Your task to perform on an android device: Go to sound settings Image 0: 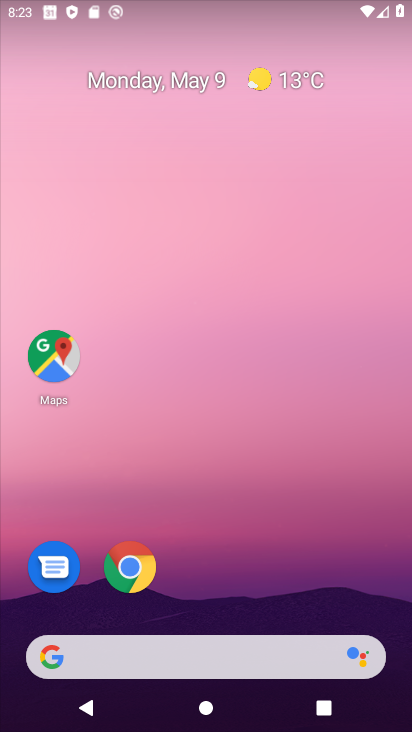
Step 0: drag from (274, 541) to (306, 11)
Your task to perform on an android device: Go to sound settings Image 1: 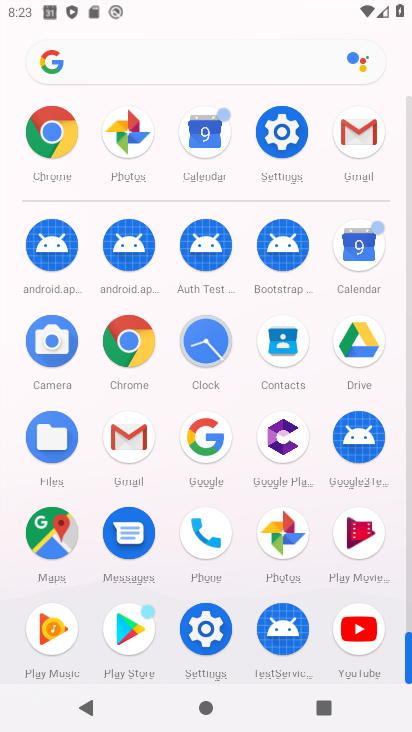
Step 1: click (281, 126)
Your task to perform on an android device: Go to sound settings Image 2: 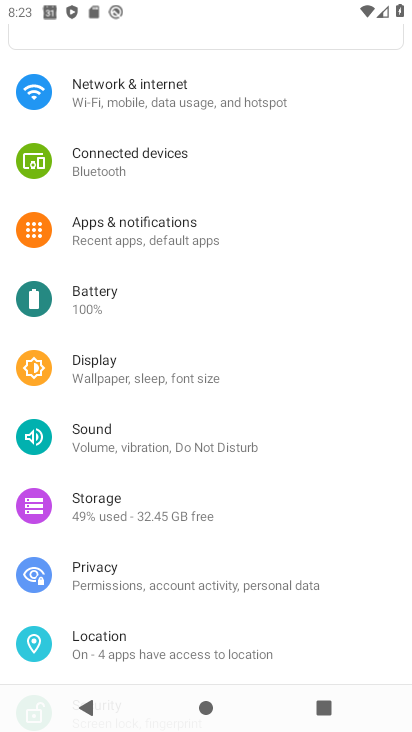
Step 2: click (151, 452)
Your task to perform on an android device: Go to sound settings Image 3: 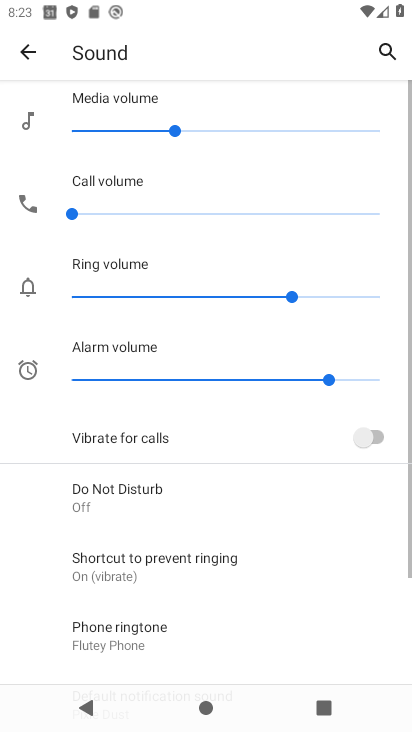
Step 3: task complete